Your task to perform on an android device: Open location settings Image 0: 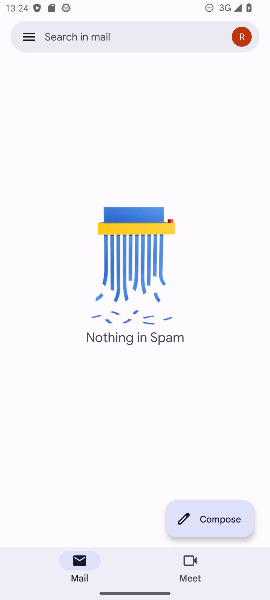
Step 0: press home button
Your task to perform on an android device: Open location settings Image 1: 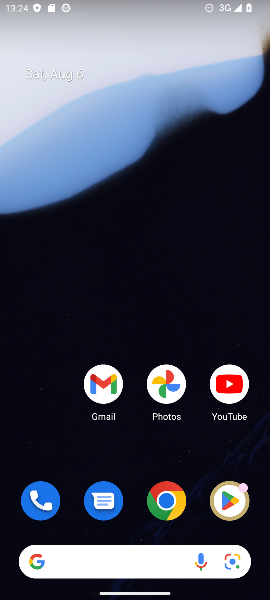
Step 1: drag from (129, 481) to (142, 39)
Your task to perform on an android device: Open location settings Image 2: 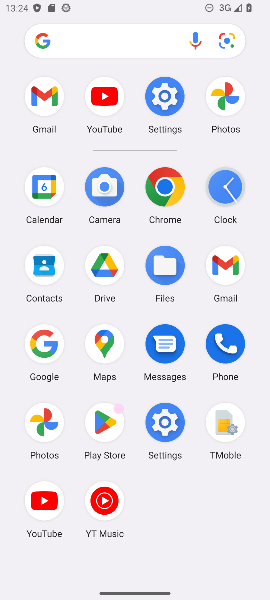
Step 2: click (164, 90)
Your task to perform on an android device: Open location settings Image 3: 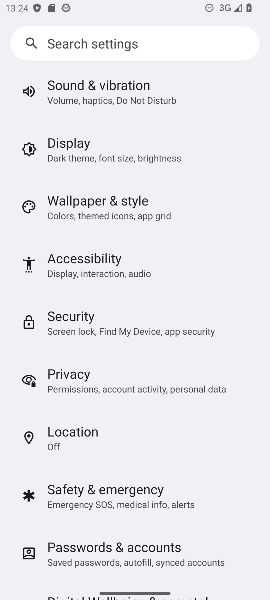
Step 3: click (87, 436)
Your task to perform on an android device: Open location settings Image 4: 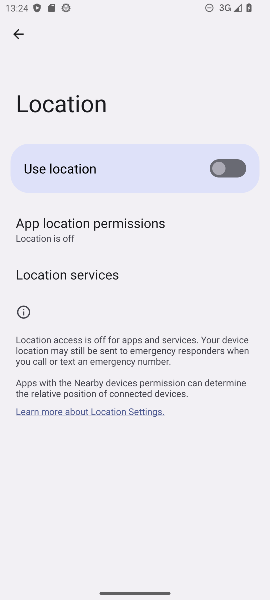
Step 4: task complete